Your task to perform on an android device: open app "Facebook Lite" (install if not already installed) and enter user name: "suppers@inbox.com" and password: "downplayed" Image 0: 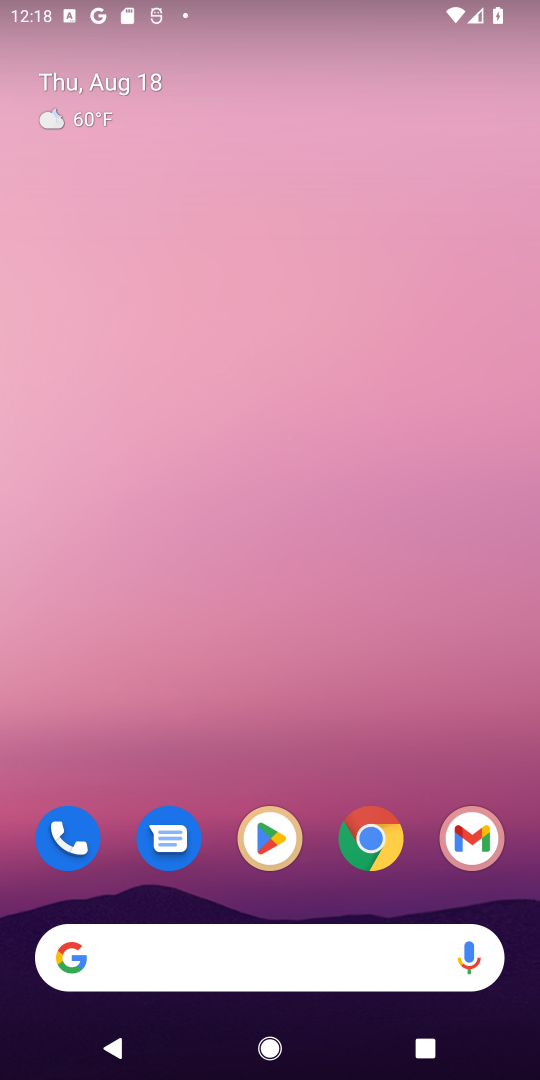
Step 0: click (276, 851)
Your task to perform on an android device: open app "Facebook Lite" (install if not already installed) and enter user name: "suppers@inbox.com" and password: "downplayed" Image 1: 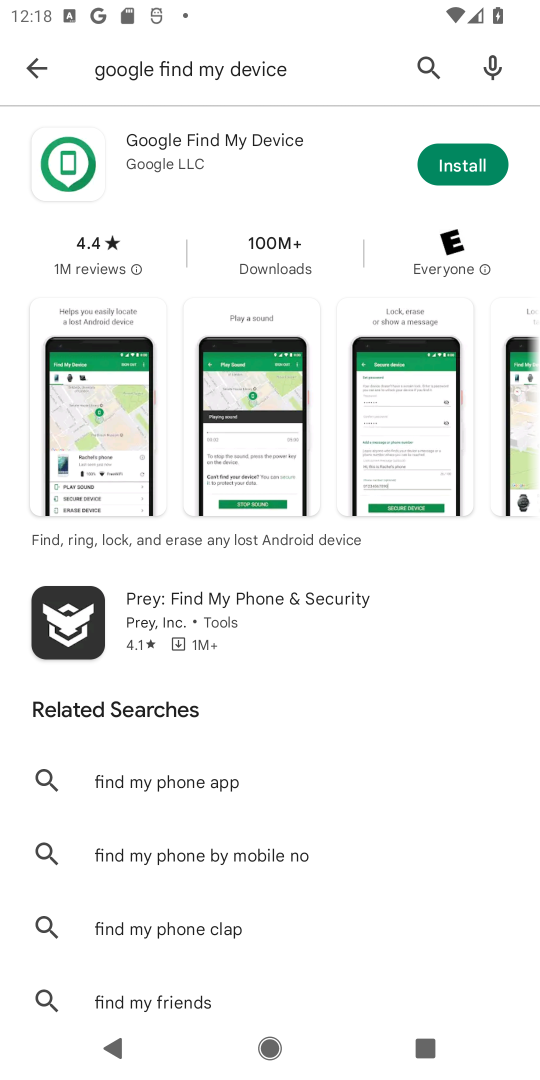
Step 1: click (414, 67)
Your task to perform on an android device: open app "Facebook Lite" (install if not already installed) and enter user name: "suppers@inbox.com" and password: "downplayed" Image 2: 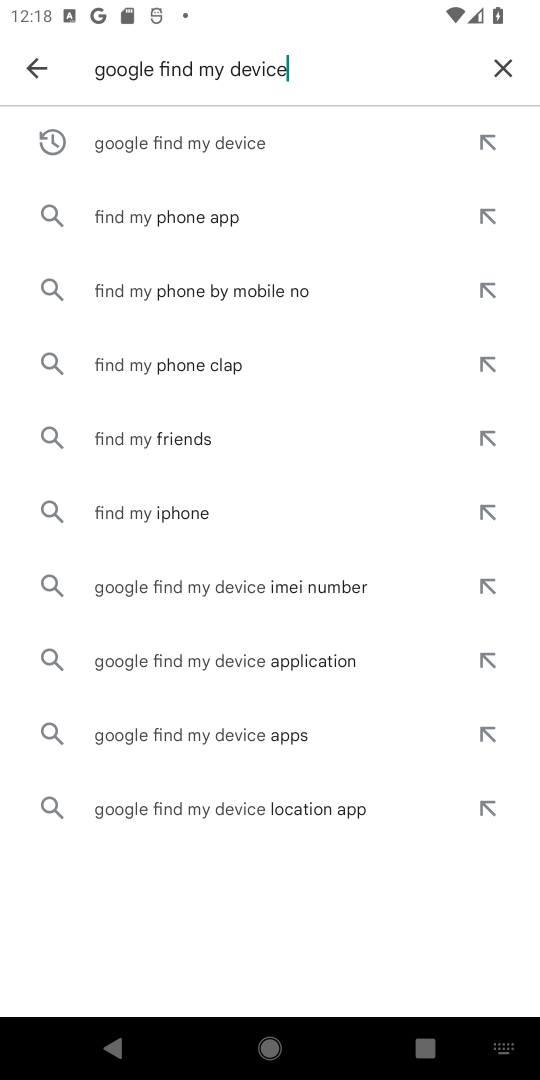
Step 2: click (496, 64)
Your task to perform on an android device: open app "Facebook Lite" (install if not already installed) and enter user name: "suppers@inbox.com" and password: "downplayed" Image 3: 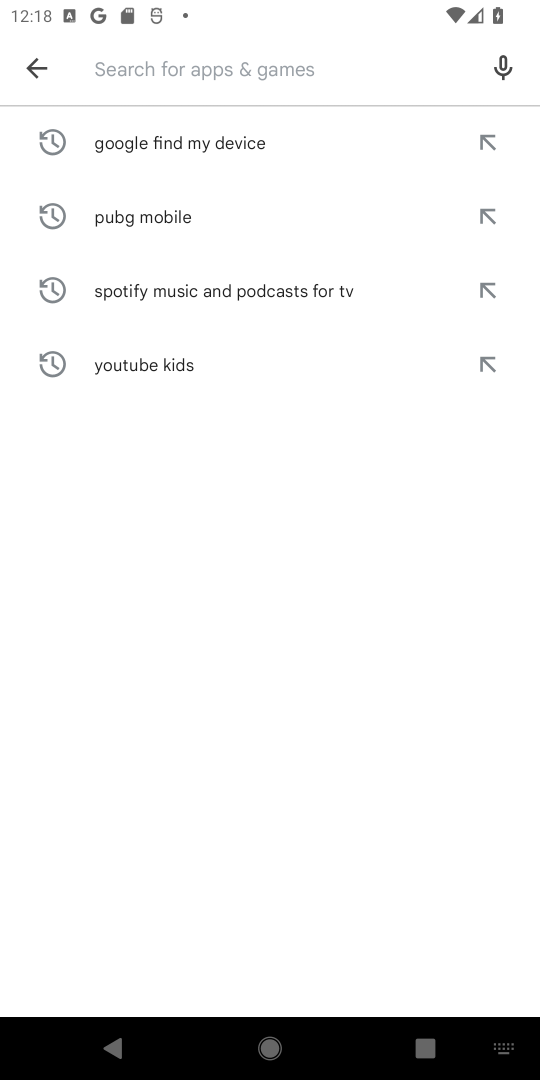
Step 3: type "Facebook Lite"
Your task to perform on an android device: open app "Facebook Lite" (install if not already installed) and enter user name: "suppers@inbox.com" and password: "downplayed" Image 4: 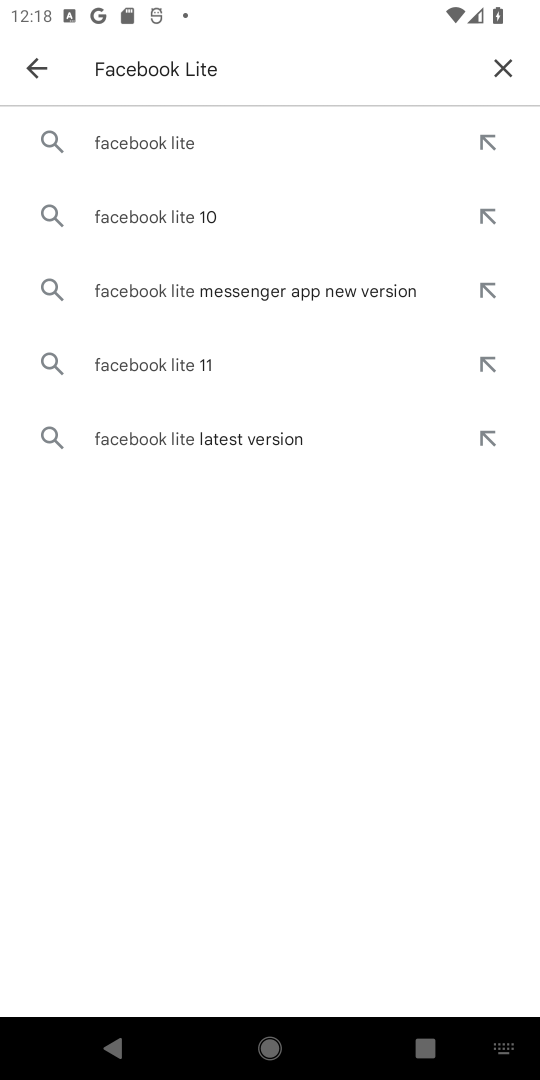
Step 4: click (210, 144)
Your task to perform on an android device: open app "Facebook Lite" (install if not already installed) and enter user name: "suppers@inbox.com" and password: "downplayed" Image 5: 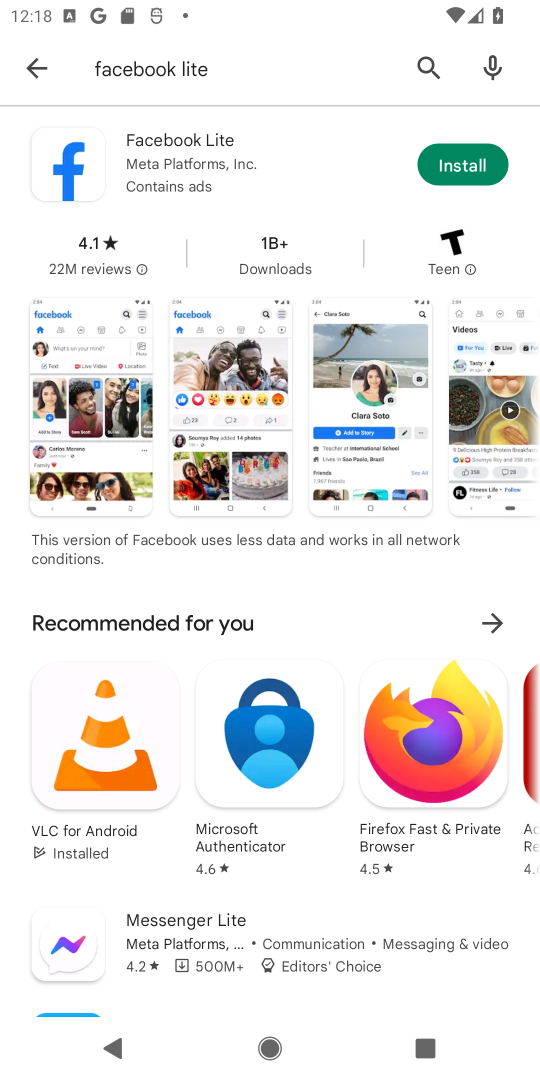
Step 5: click (474, 157)
Your task to perform on an android device: open app "Facebook Lite" (install if not already installed) and enter user name: "suppers@inbox.com" and password: "downplayed" Image 6: 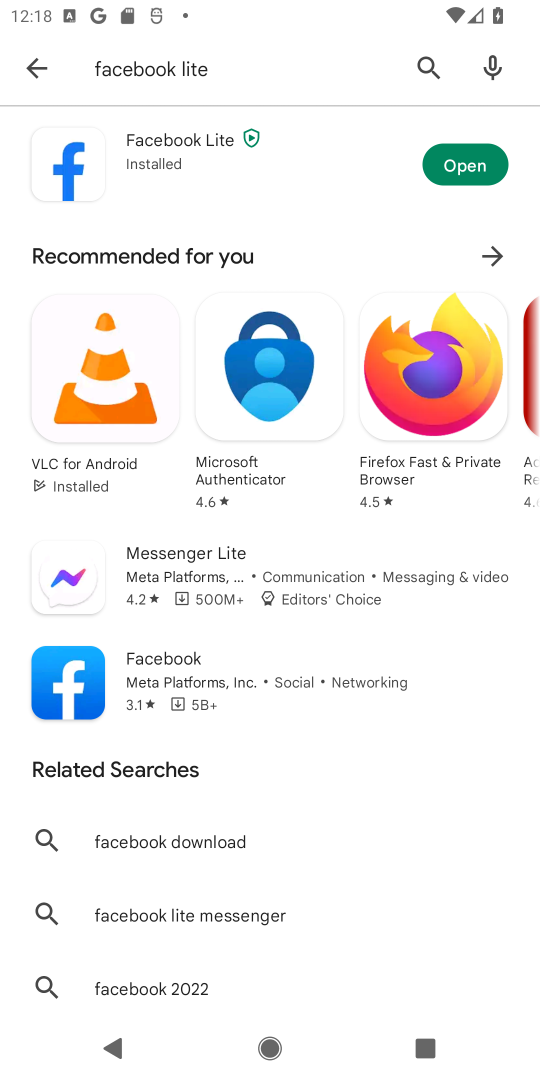
Step 6: click (474, 157)
Your task to perform on an android device: open app "Facebook Lite" (install if not already installed) and enter user name: "suppers@inbox.com" and password: "downplayed" Image 7: 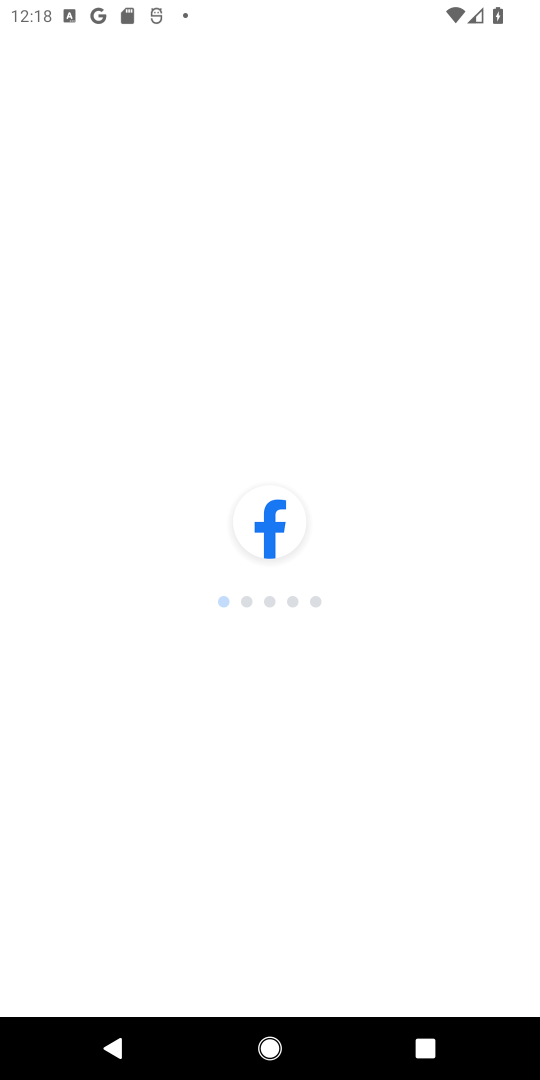
Step 7: task complete